Your task to perform on an android device: choose inbox layout in the gmail app Image 0: 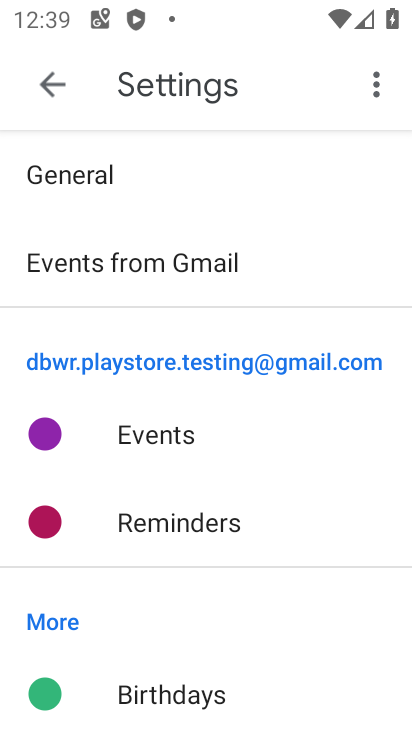
Step 0: press home button
Your task to perform on an android device: choose inbox layout in the gmail app Image 1: 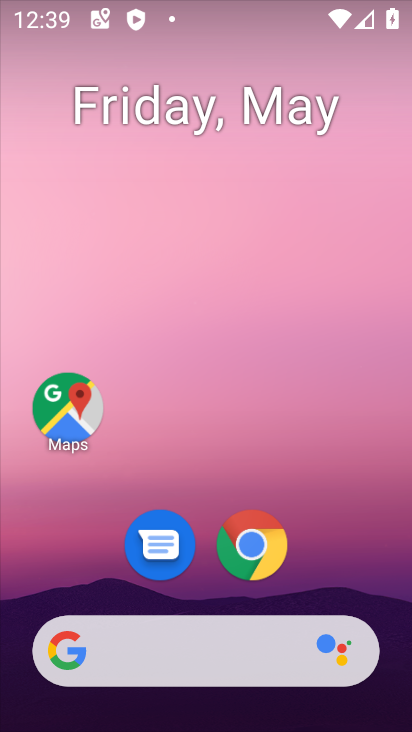
Step 1: drag from (355, 570) to (355, 260)
Your task to perform on an android device: choose inbox layout in the gmail app Image 2: 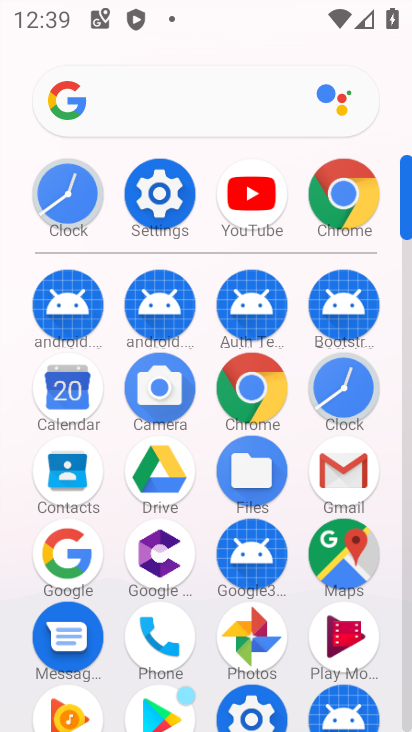
Step 2: click (335, 478)
Your task to perform on an android device: choose inbox layout in the gmail app Image 3: 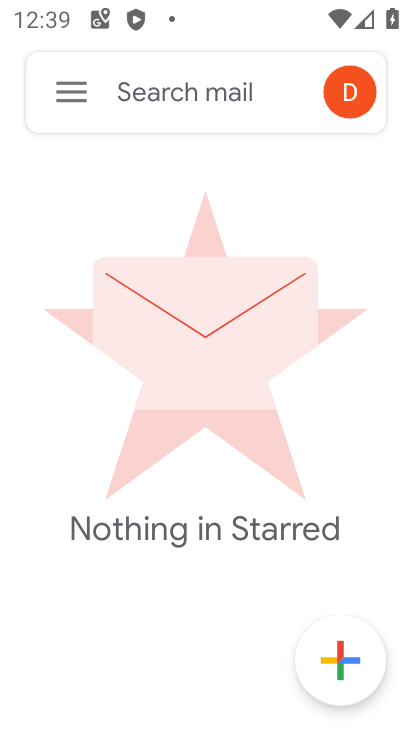
Step 3: click (80, 94)
Your task to perform on an android device: choose inbox layout in the gmail app Image 4: 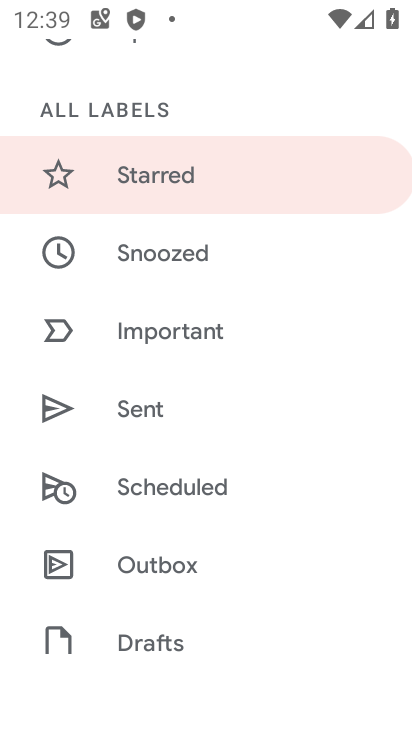
Step 4: drag from (233, 482) to (252, 204)
Your task to perform on an android device: choose inbox layout in the gmail app Image 5: 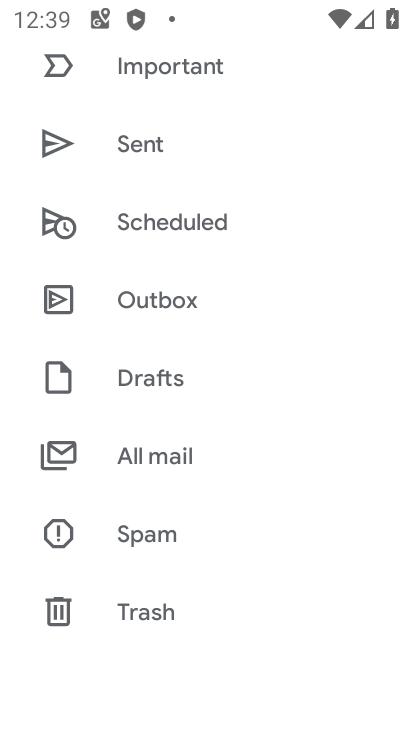
Step 5: drag from (231, 451) to (247, 166)
Your task to perform on an android device: choose inbox layout in the gmail app Image 6: 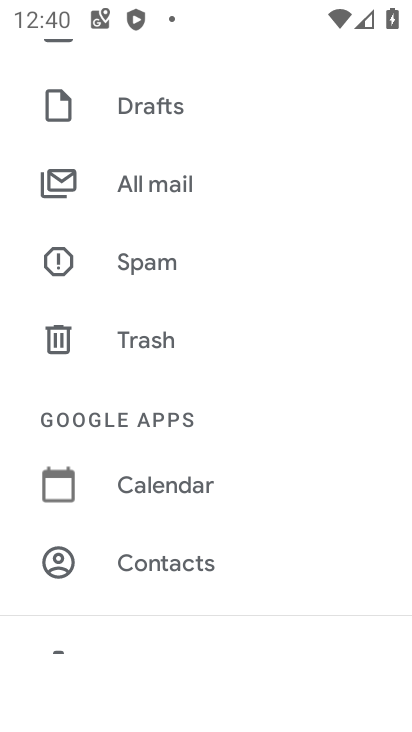
Step 6: drag from (202, 405) to (264, 140)
Your task to perform on an android device: choose inbox layout in the gmail app Image 7: 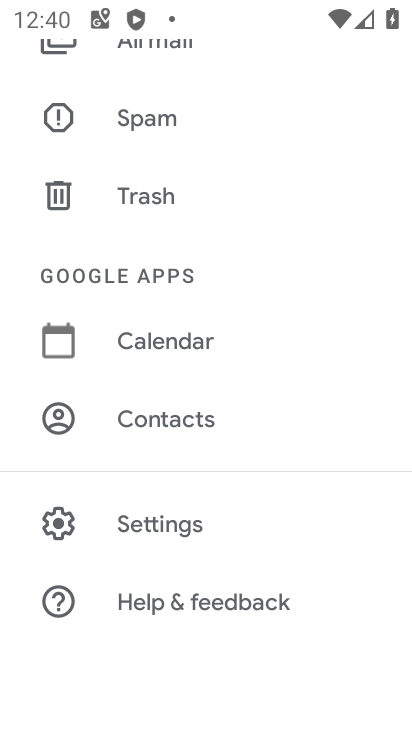
Step 7: click (254, 510)
Your task to perform on an android device: choose inbox layout in the gmail app Image 8: 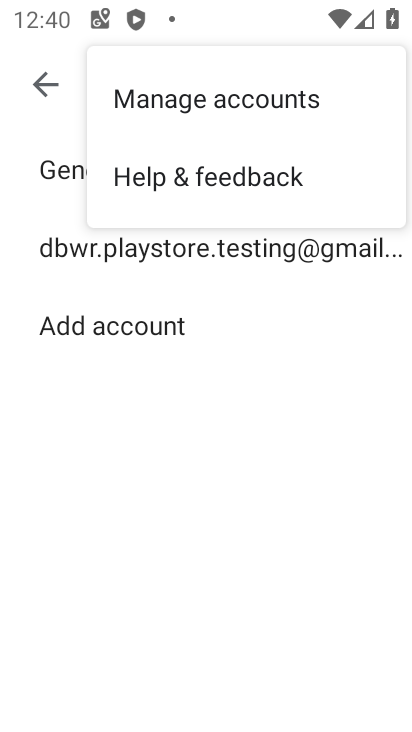
Step 8: task complete